Your task to perform on an android device: Go to Yahoo.com Image 0: 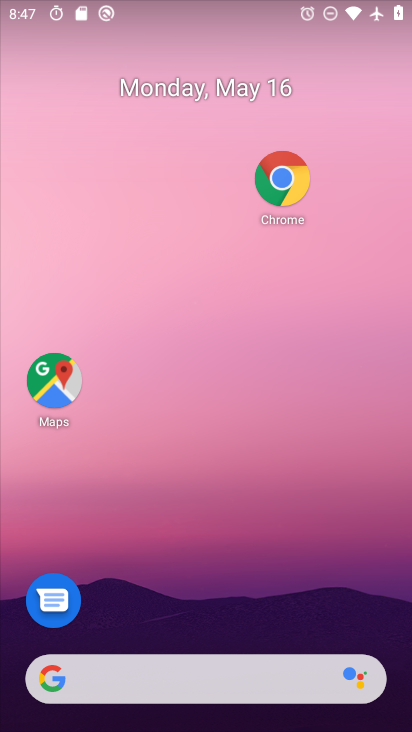
Step 0: click (292, 183)
Your task to perform on an android device: Go to Yahoo.com Image 1: 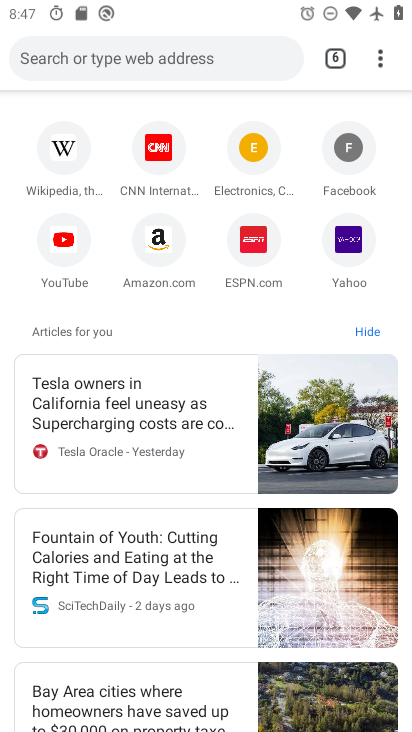
Step 1: click (348, 242)
Your task to perform on an android device: Go to Yahoo.com Image 2: 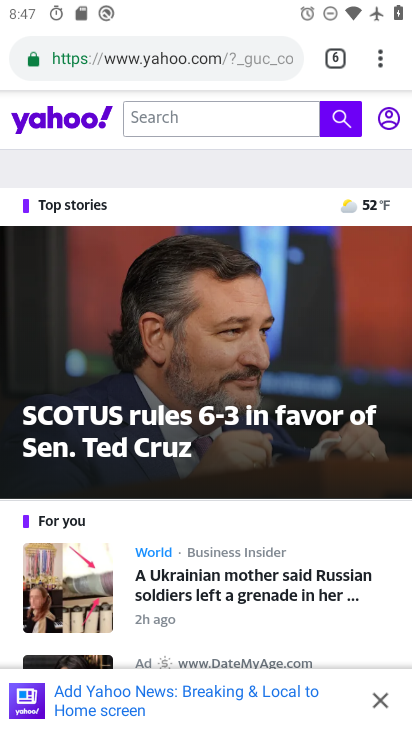
Step 2: task complete